Your task to perform on an android device: turn off location Image 0: 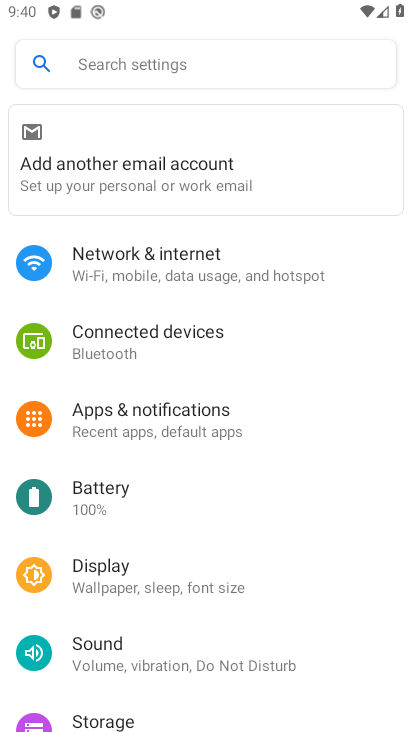
Step 0: drag from (183, 627) to (186, 270)
Your task to perform on an android device: turn off location Image 1: 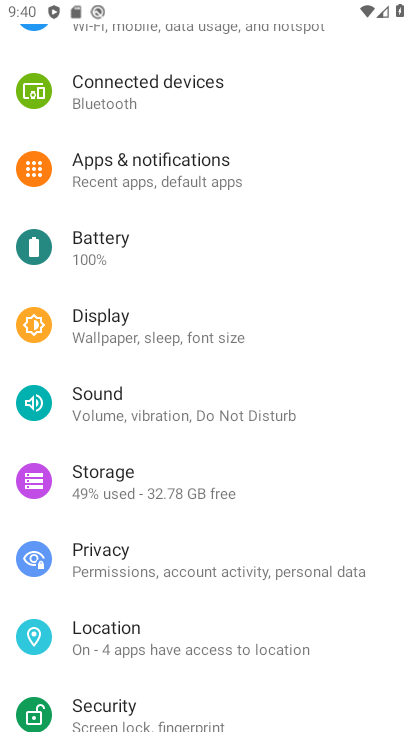
Step 1: drag from (158, 689) to (157, 351)
Your task to perform on an android device: turn off location Image 2: 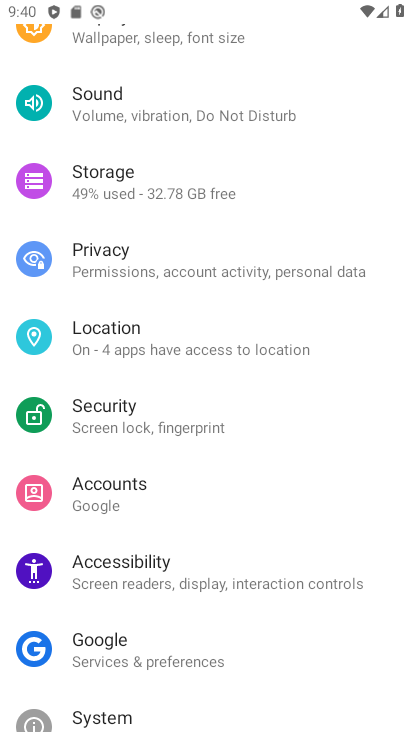
Step 2: click (83, 349)
Your task to perform on an android device: turn off location Image 3: 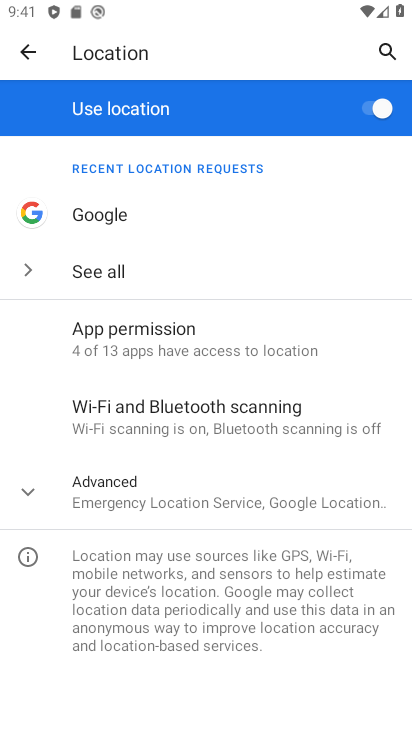
Step 3: click (370, 108)
Your task to perform on an android device: turn off location Image 4: 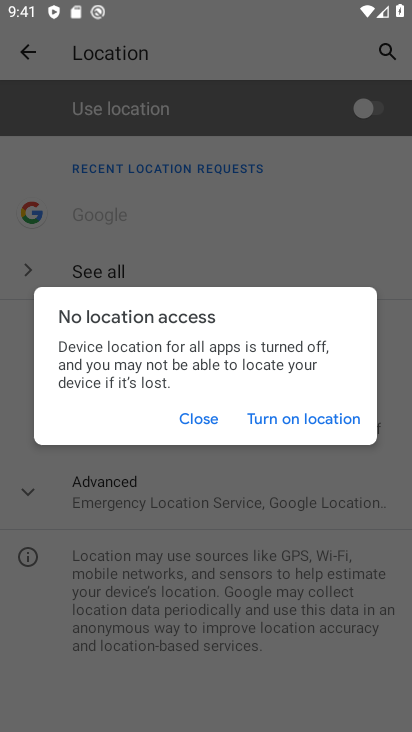
Step 4: click (200, 414)
Your task to perform on an android device: turn off location Image 5: 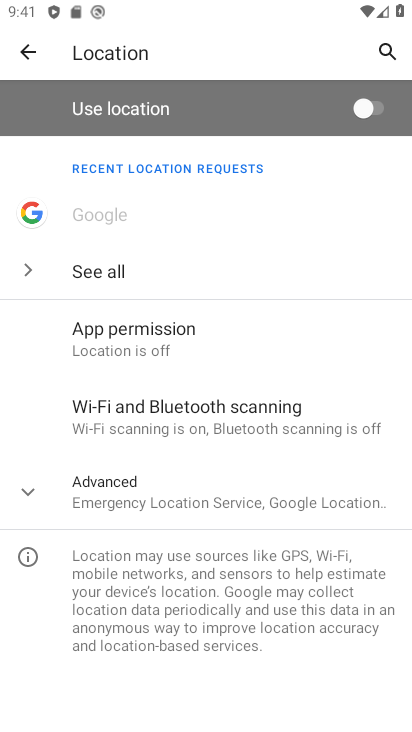
Step 5: task complete